Your task to perform on an android device: Go to sound settings Image 0: 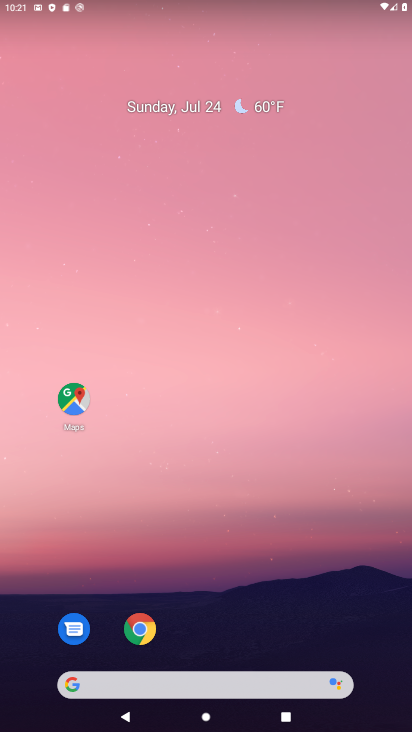
Step 0: drag from (297, 639) to (288, 189)
Your task to perform on an android device: Go to sound settings Image 1: 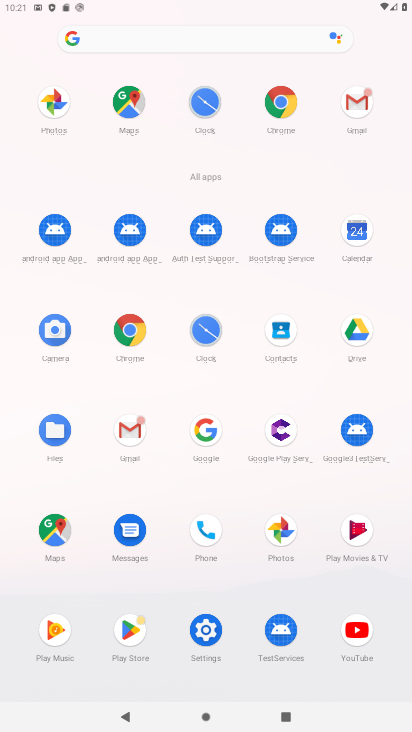
Step 1: click (198, 633)
Your task to perform on an android device: Go to sound settings Image 2: 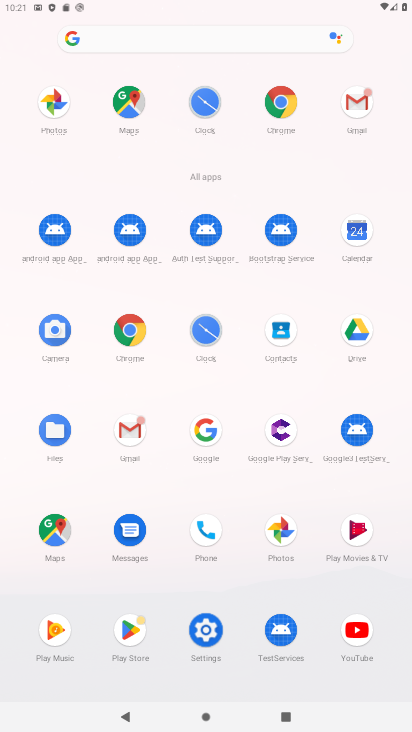
Step 2: click (198, 633)
Your task to perform on an android device: Go to sound settings Image 3: 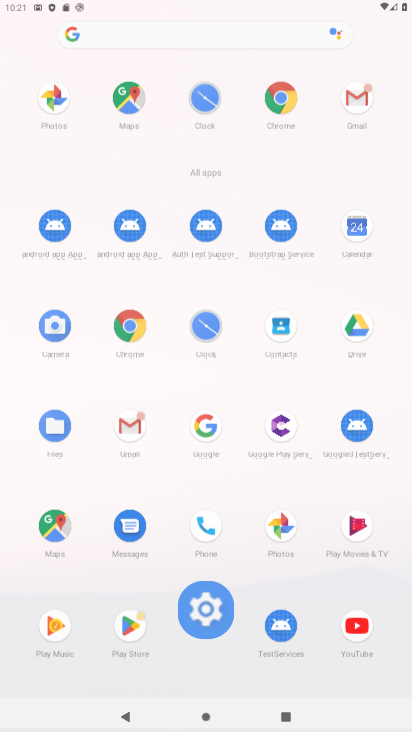
Step 3: click (199, 631)
Your task to perform on an android device: Go to sound settings Image 4: 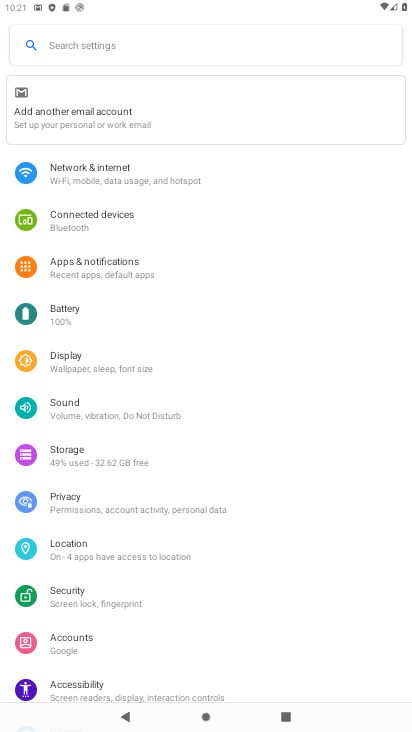
Step 4: click (69, 409)
Your task to perform on an android device: Go to sound settings Image 5: 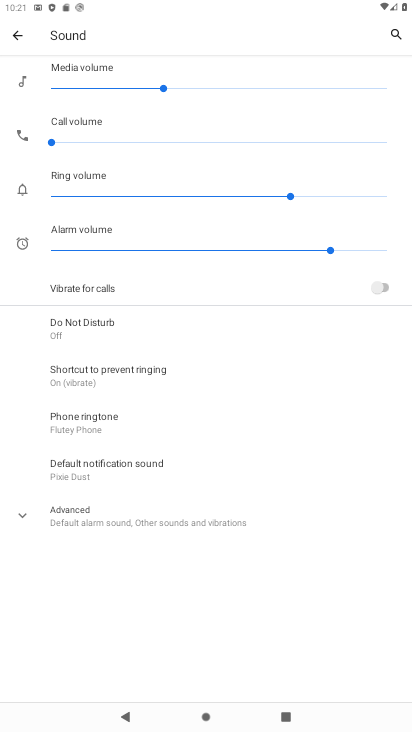
Step 5: task complete